Your task to perform on an android device: open wifi settings Image 0: 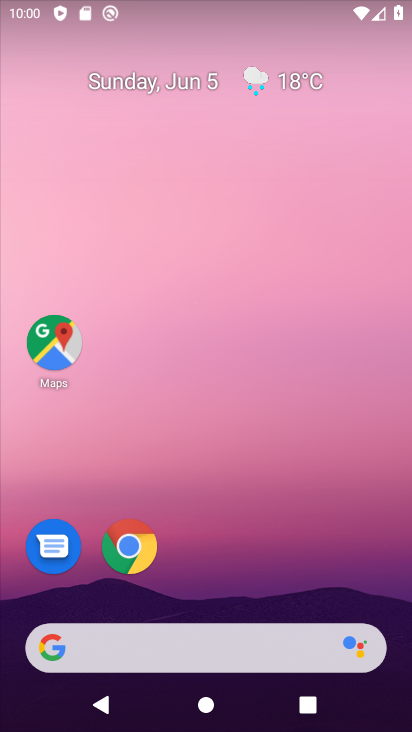
Step 0: drag from (168, 610) to (185, 119)
Your task to perform on an android device: open wifi settings Image 1: 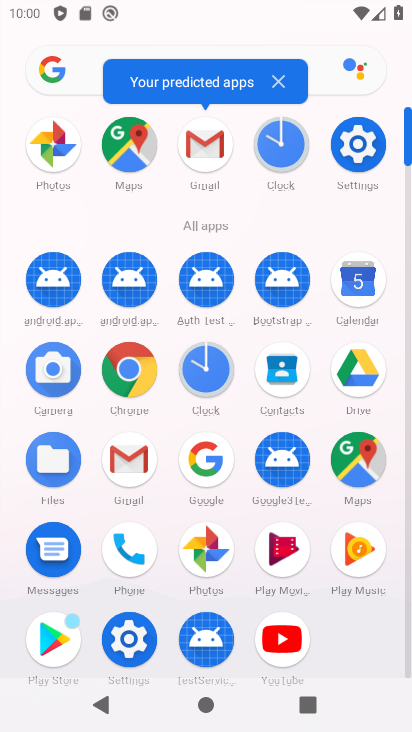
Step 1: click (366, 145)
Your task to perform on an android device: open wifi settings Image 2: 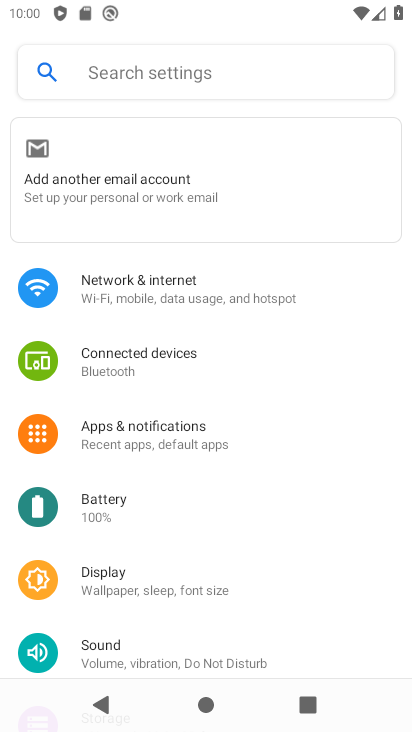
Step 2: click (93, 293)
Your task to perform on an android device: open wifi settings Image 3: 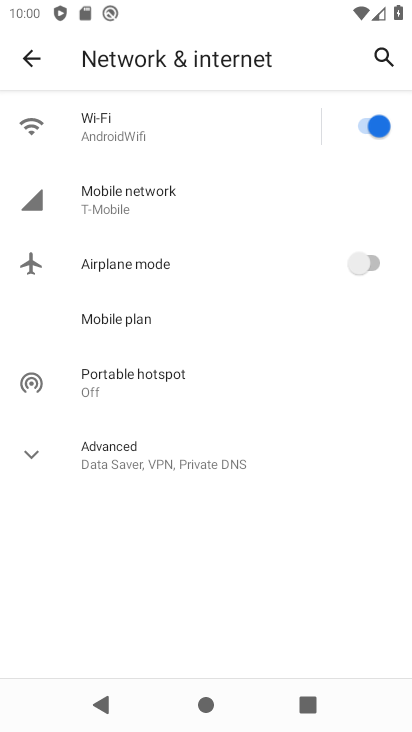
Step 3: click (94, 133)
Your task to perform on an android device: open wifi settings Image 4: 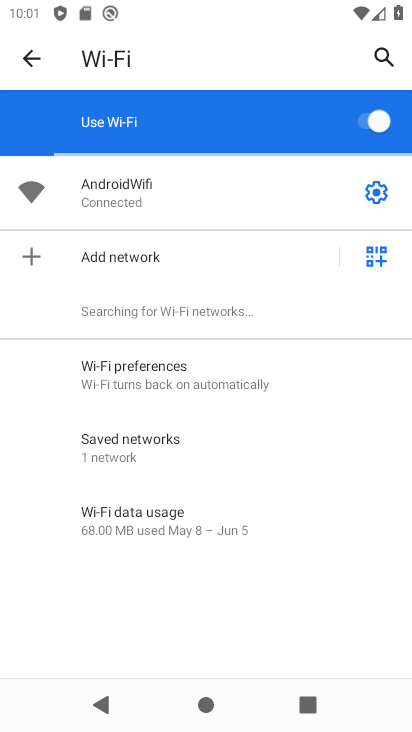
Step 4: task complete